Your task to perform on an android device: Open the calendar app, open the side menu, and click the "Day" option Image 0: 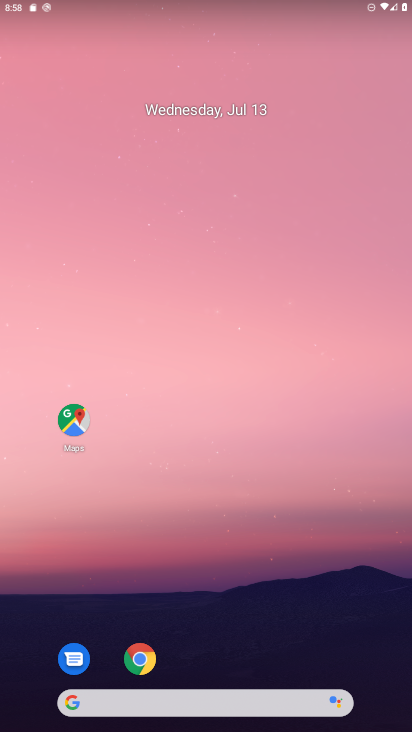
Step 0: drag from (200, 583) to (170, 96)
Your task to perform on an android device: Open the calendar app, open the side menu, and click the "Day" option Image 1: 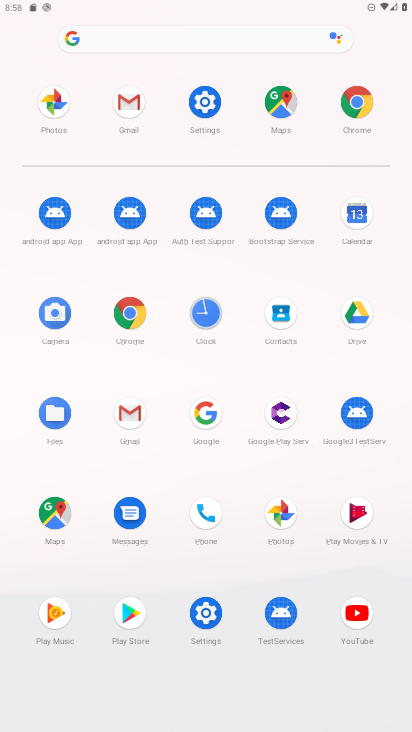
Step 1: click (358, 214)
Your task to perform on an android device: Open the calendar app, open the side menu, and click the "Day" option Image 2: 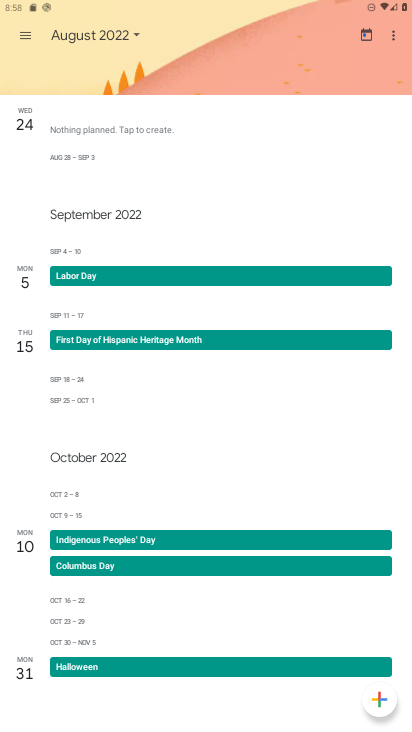
Step 2: click (107, 41)
Your task to perform on an android device: Open the calendar app, open the side menu, and click the "Day" option Image 3: 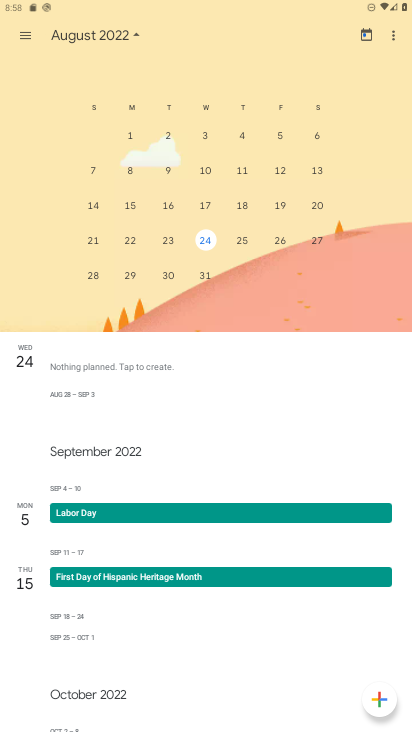
Step 3: drag from (39, 298) to (406, 256)
Your task to perform on an android device: Open the calendar app, open the side menu, and click the "Day" option Image 4: 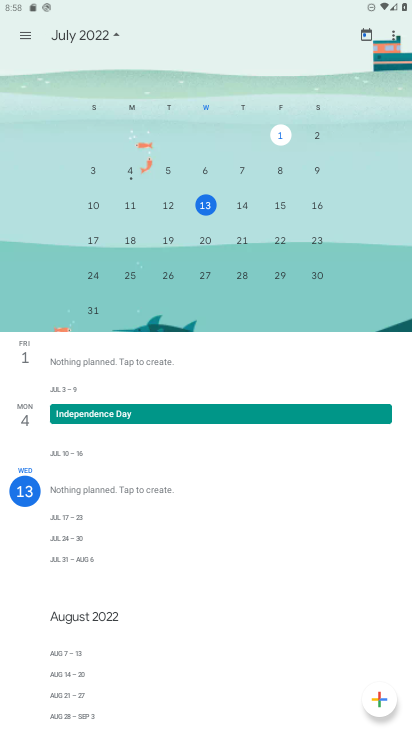
Step 4: click (30, 43)
Your task to perform on an android device: Open the calendar app, open the side menu, and click the "Day" option Image 5: 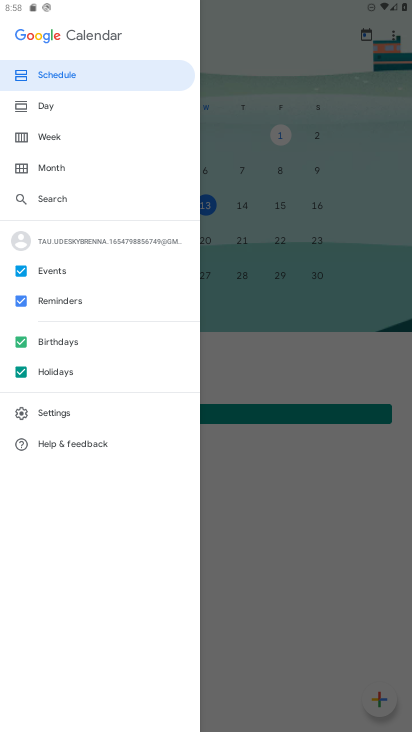
Step 5: click (62, 100)
Your task to perform on an android device: Open the calendar app, open the side menu, and click the "Day" option Image 6: 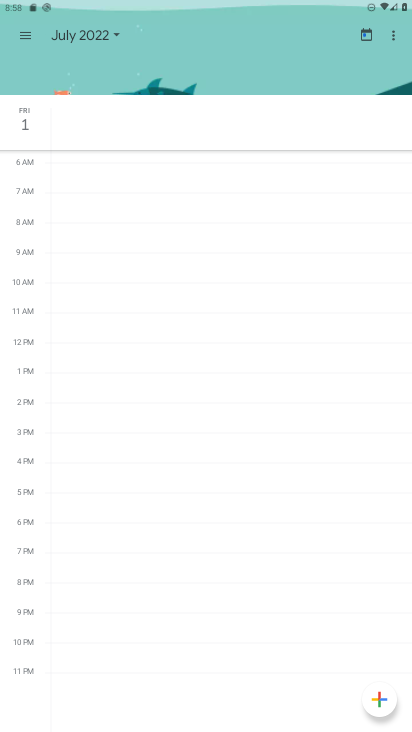
Step 6: task complete